Your task to perform on an android device: Open privacy settings Image 0: 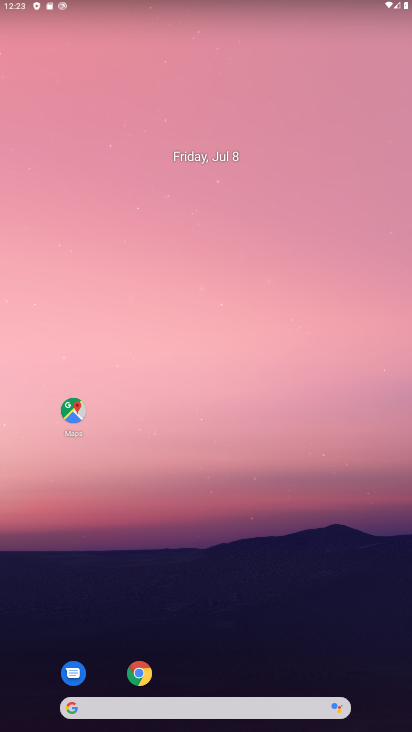
Step 0: press home button
Your task to perform on an android device: Open privacy settings Image 1: 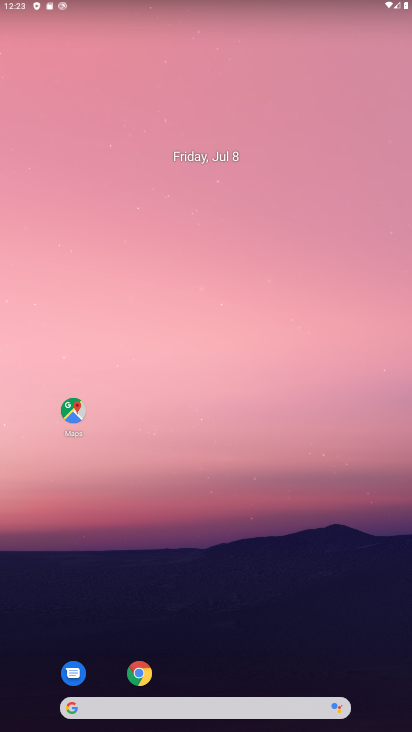
Step 1: click (284, 271)
Your task to perform on an android device: Open privacy settings Image 2: 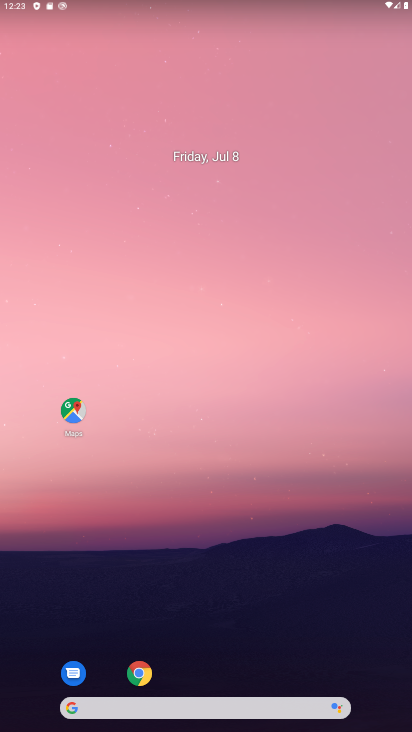
Step 2: drag from (246, 552) to (255, 52)
Your task to perform on an android device: Open privacy settings Image 3: 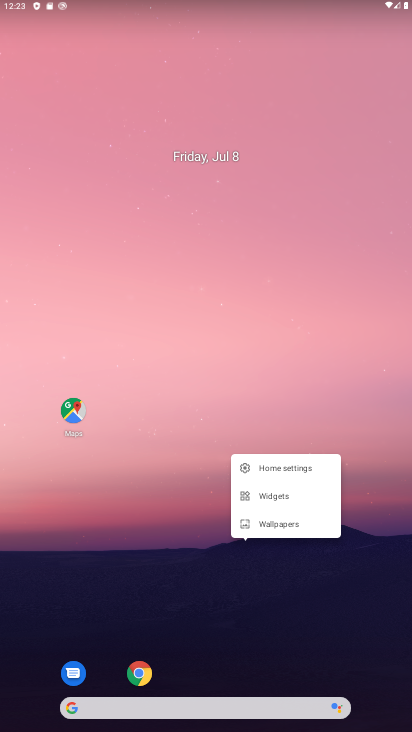
Step 3: drag from (194, 556) to (232, 0)
Your task to perform on an android device: Open privacy settings Image 4: 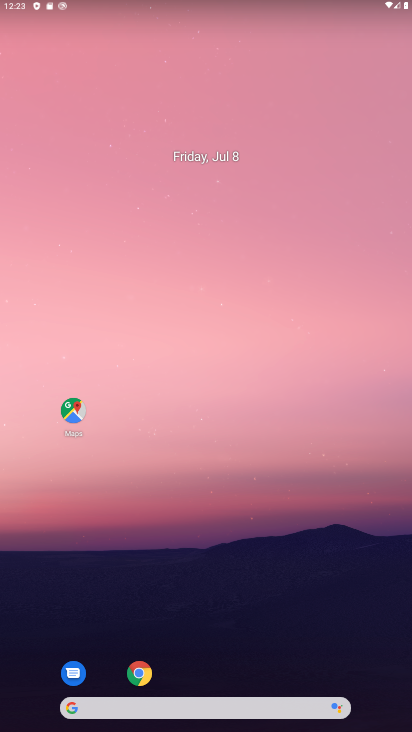
Step 4: drag from (243, 458) to (322, 10)
Your task to perform on an android device: Open privacy settings Image 5: 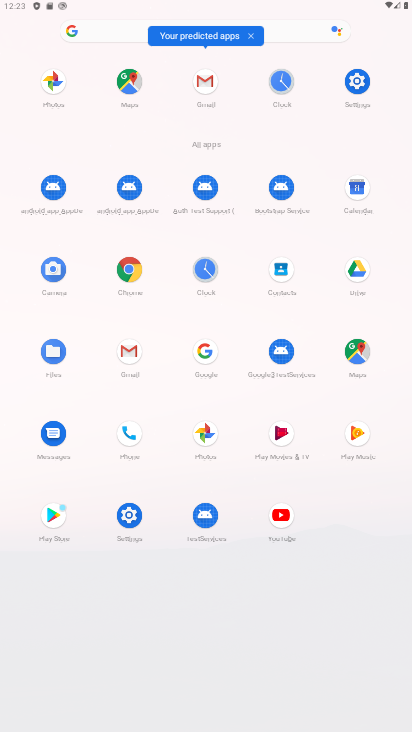
Step 5: click (357, 79)
Your task to perform on an android device: Open privacy settings Image 6: 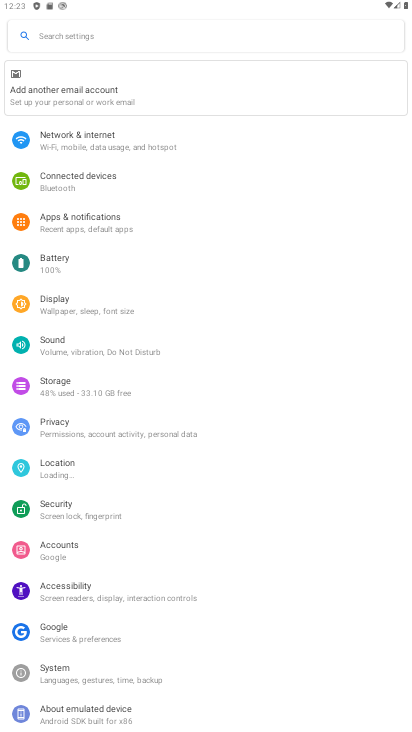
Step 6: click (59, 422)
Your task to perform on an android device: Open privacy settings Image 7: 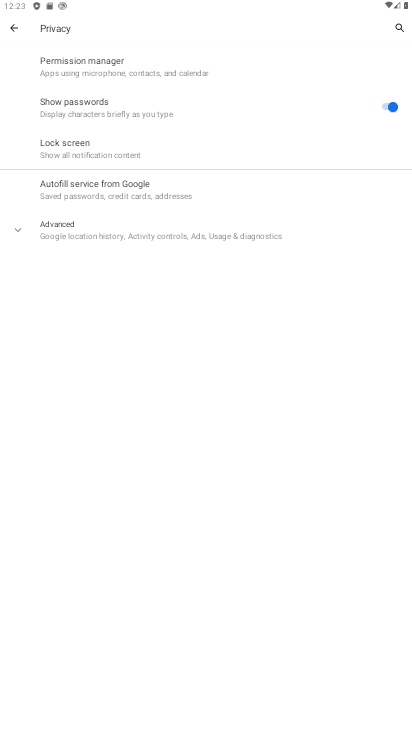
Step 7: task complete